Your task to perform on an android device: Open settings Image 0: 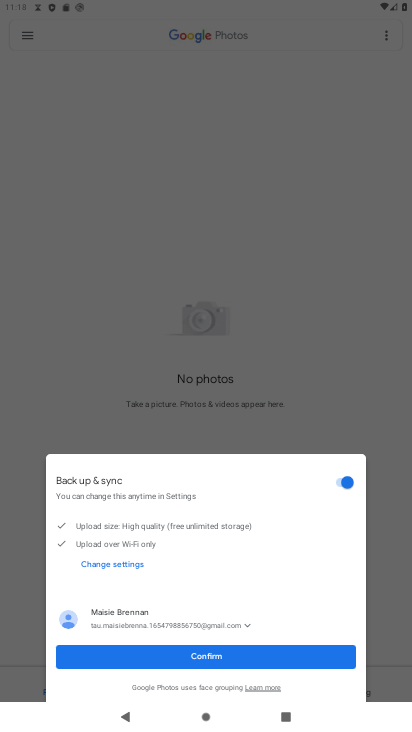
Step 0: press home button
Your task to perform on an android device: Open settings Image 1: 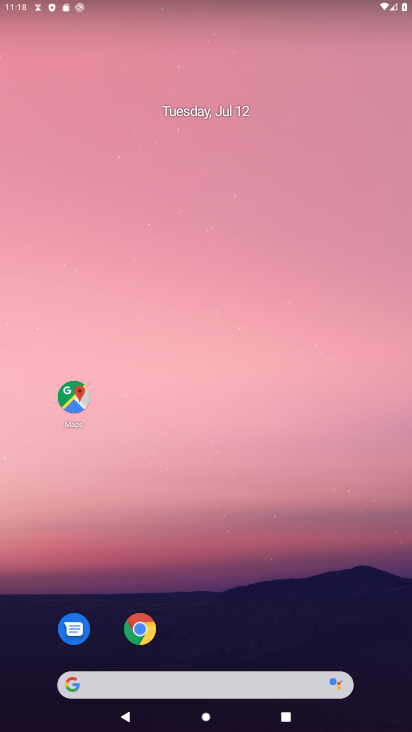
Step 1: drag from (327, 565) to (396, 106)
Your task to perform on an android device: Open settings Image 2: 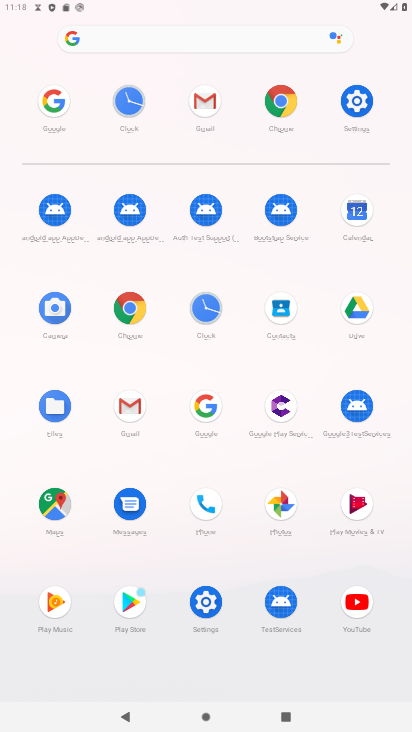
Step 2: click (377, 105)
Your task to perform on an android device: Open settings Image 3: 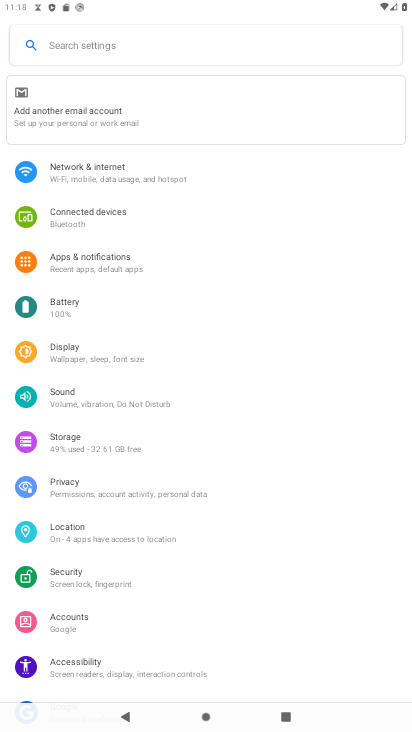
Step 3: task complete